Your task to perform on an android device: turn on wifi Image 0: 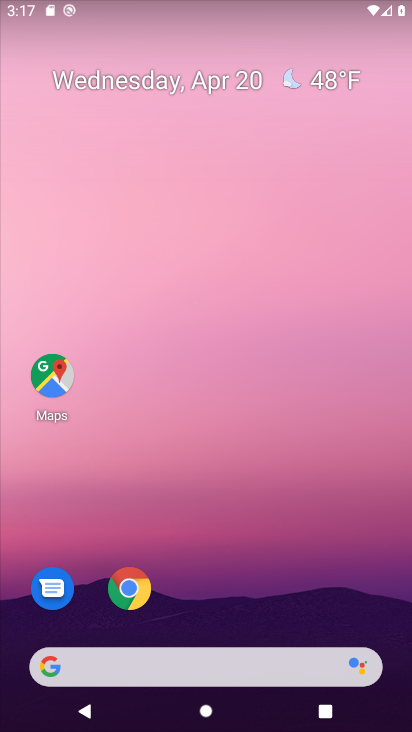
Step 0: drag from (315, 425) to (318, 76)
Your task to perform on an android device: turn on wifi Image 1: 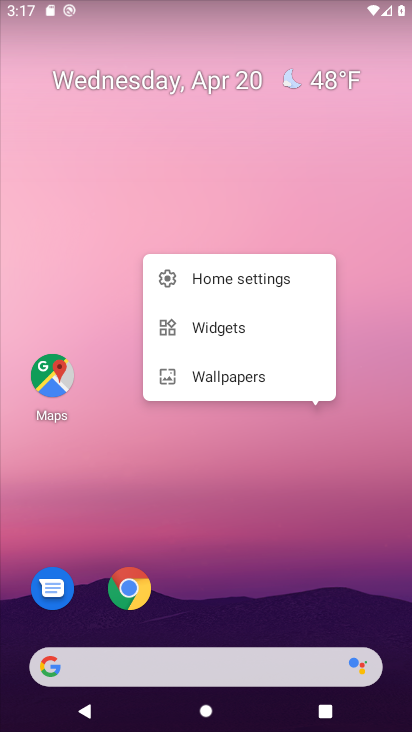
Step 1: click (330, 492)
Your task to perform on an android device: turn on wifi Image 2: 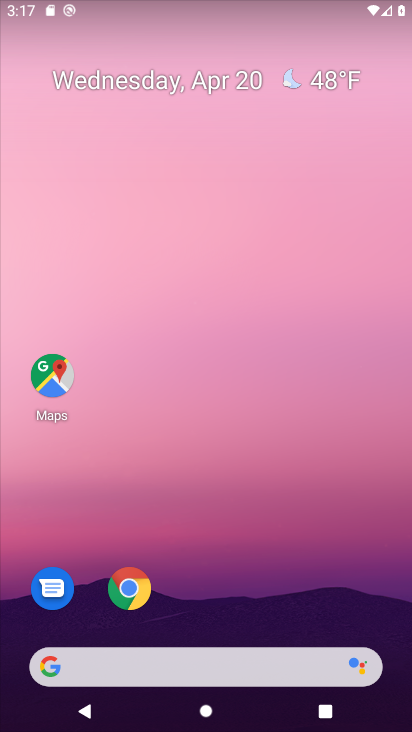
Step 2: drag from (295, 575) to (309, 98)
Your task to perform on an android device: turn on wifi Image 3: 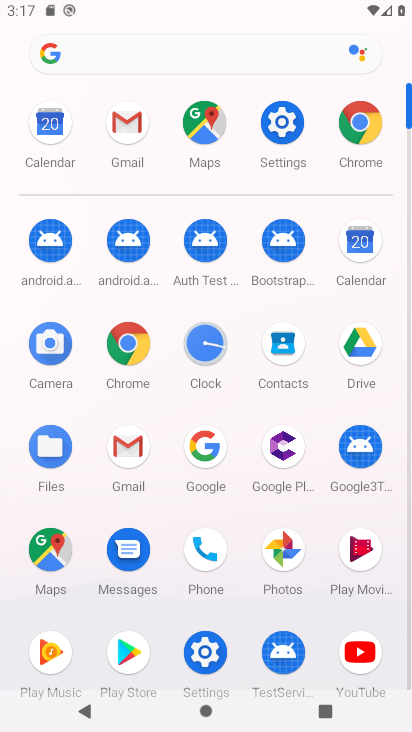
Step 3: click (284, 124)
Your task to perform on an android device: turn on wifi Image 4: 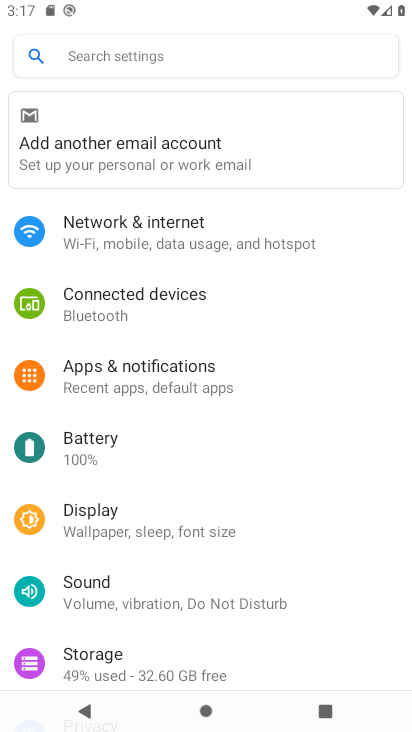
Step 4: click (200, 236)
Your task to perform on an android device: turn on wifi Image 5: 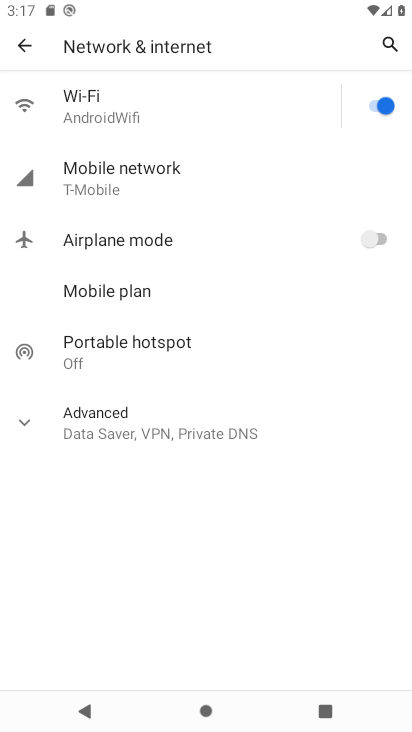
Step 5: task complete